Your task to perform on an android device: move a message to another label in the gmail app Image 0: 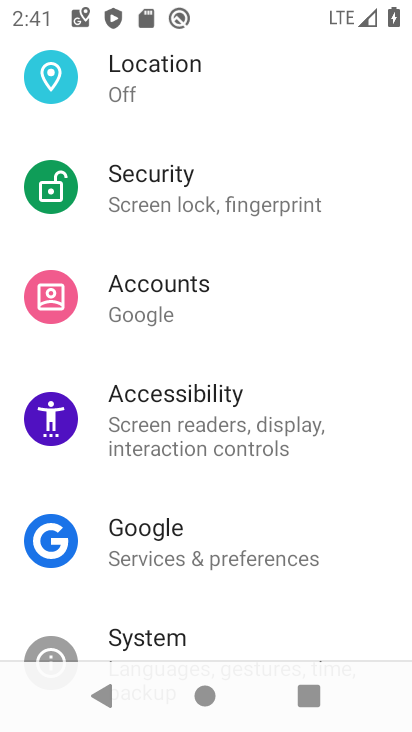
Step 0: press home button
Your task to perform on an android device: move a message to another label in the gmail app Image 1: 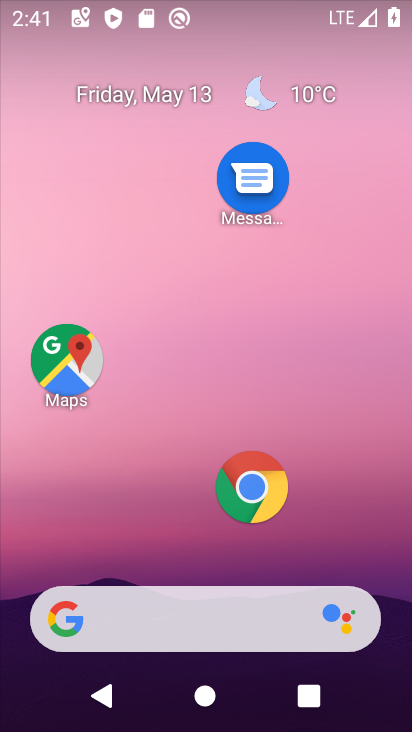
Step 1: drag from (137, 529) to (149, 107)
Your task to perform on an android device: move a message to another label in the gmail app Image 2: 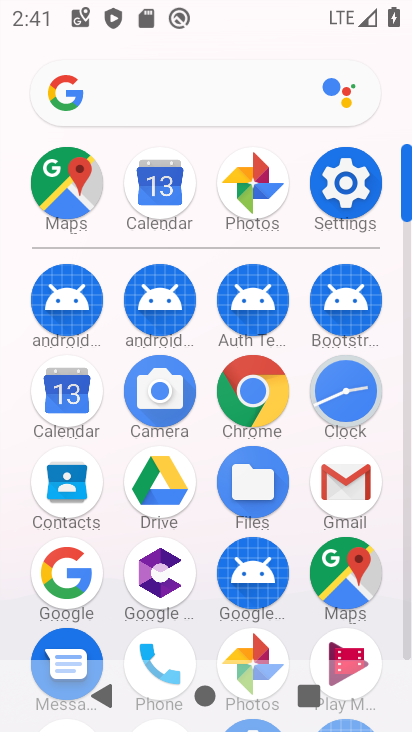
Step 2: click (347, 494)
Your task to perform on an android device: move a message to another label in the gmail app Image 3: 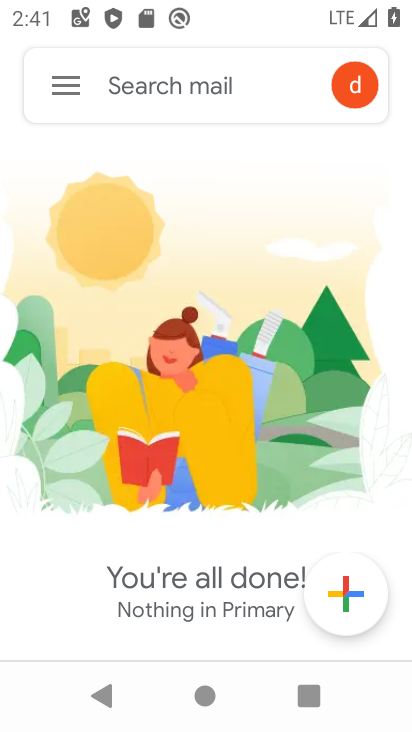
Step 3: click (69, 79)
Your task to perform on an android device: move a message to another label in the gmail app Image 4: 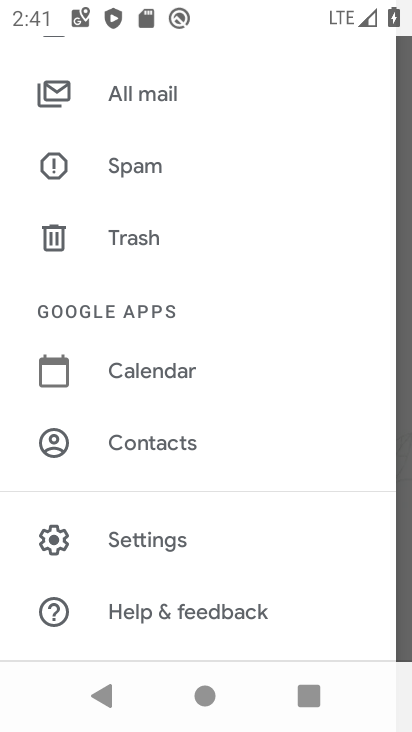
Step 4: click (123, 82)
Your task to perform on an android device: move a message to another label in the gmail app Image 5: 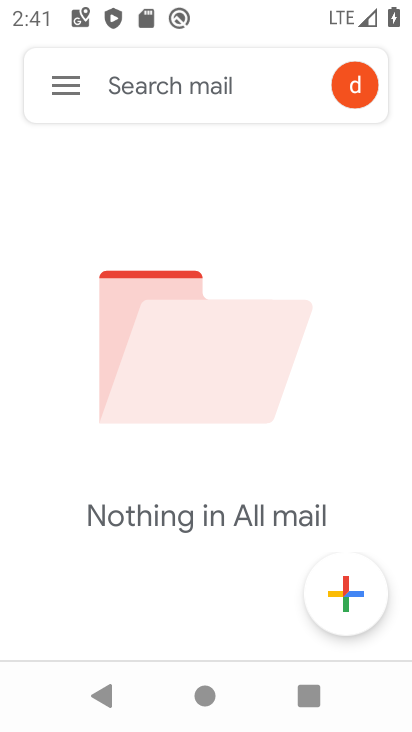
Step 5: task complete